Your task to perform on an android device: Show me the alarms in the clock app Image 0: 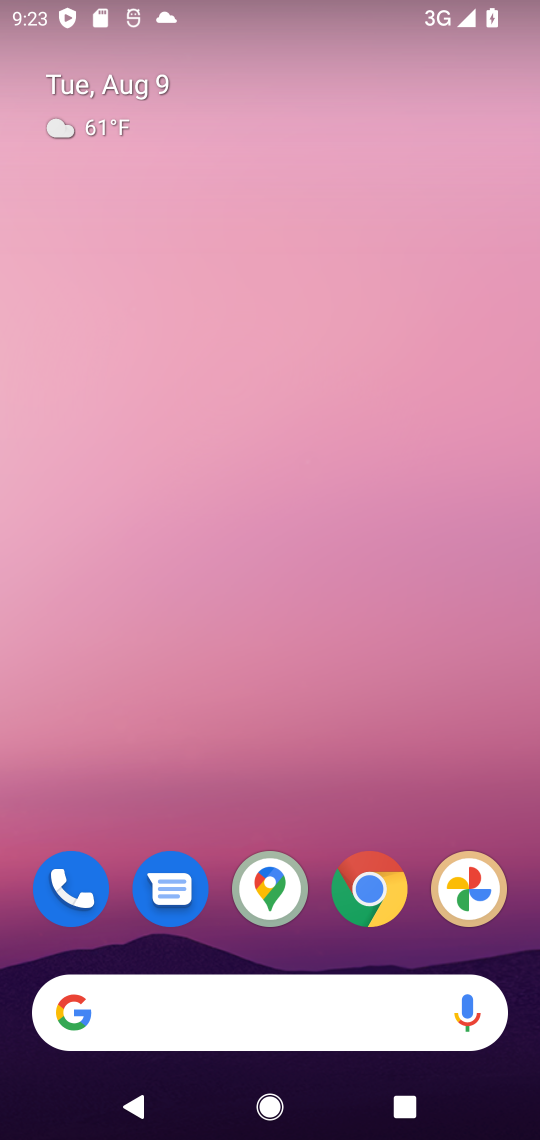
Step 0: drag from (168, 1068) to (437, 123)
Your task to perform on an android device: Show me the alarms in the clock app Image 1: 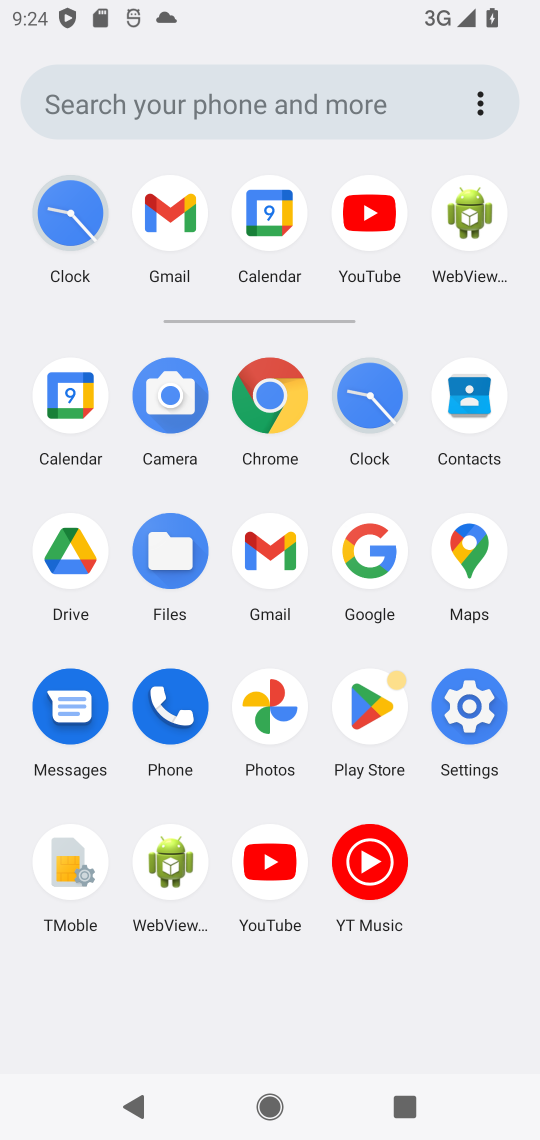
Step 1: click (49, 213)
Your task to perform on an android device: Show me the alarms in the clock app Image 2: 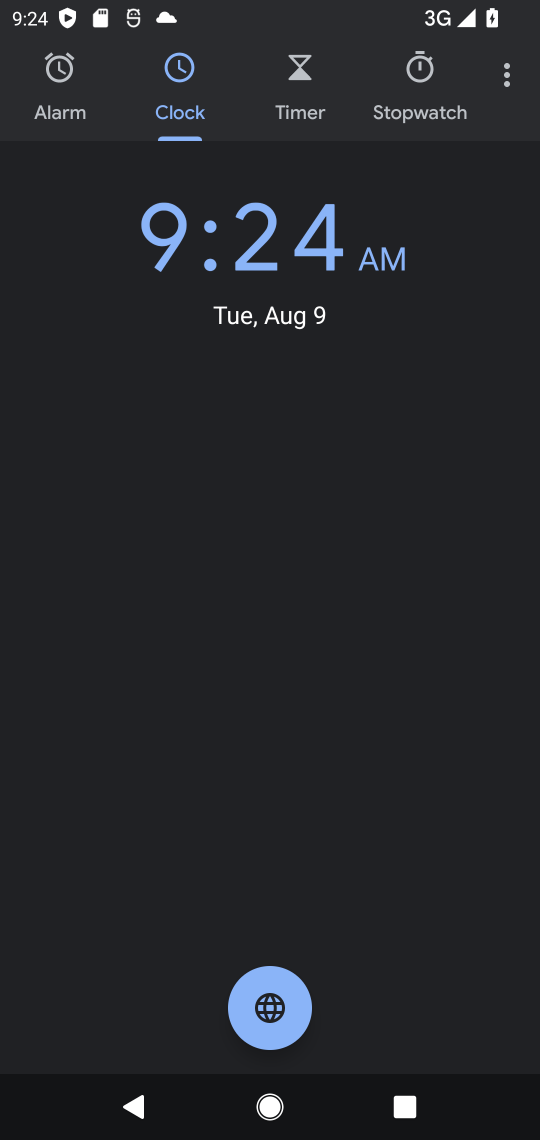
Step 2: click (68, 87)
Your task to perform on an android device: Show me the alarms in the clock app Image 3: 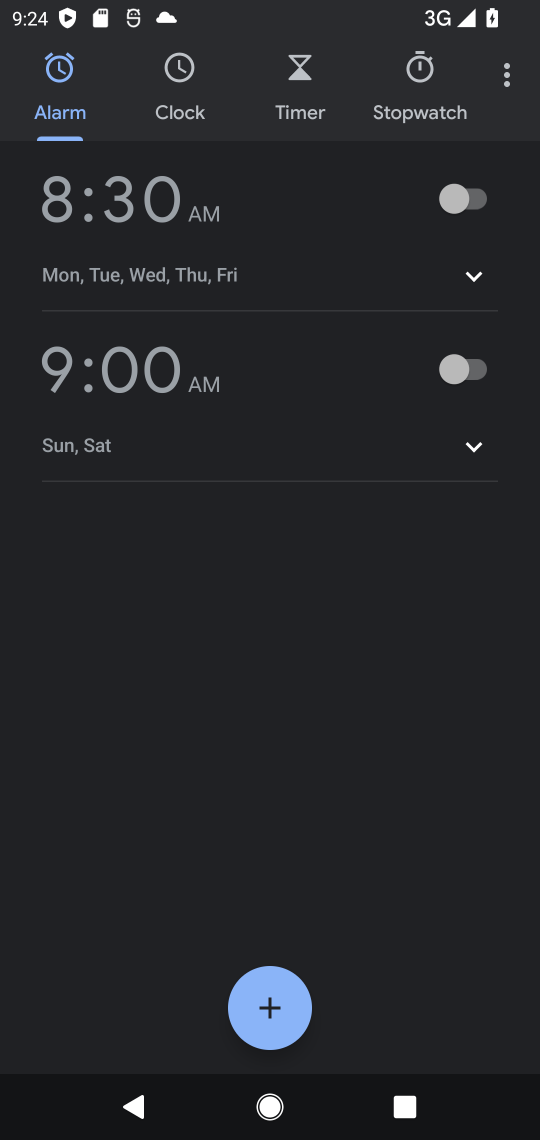
Step 3: click (59, 104)
Your task to perform on an android device: Show me the alarms in the clock app Image 4: 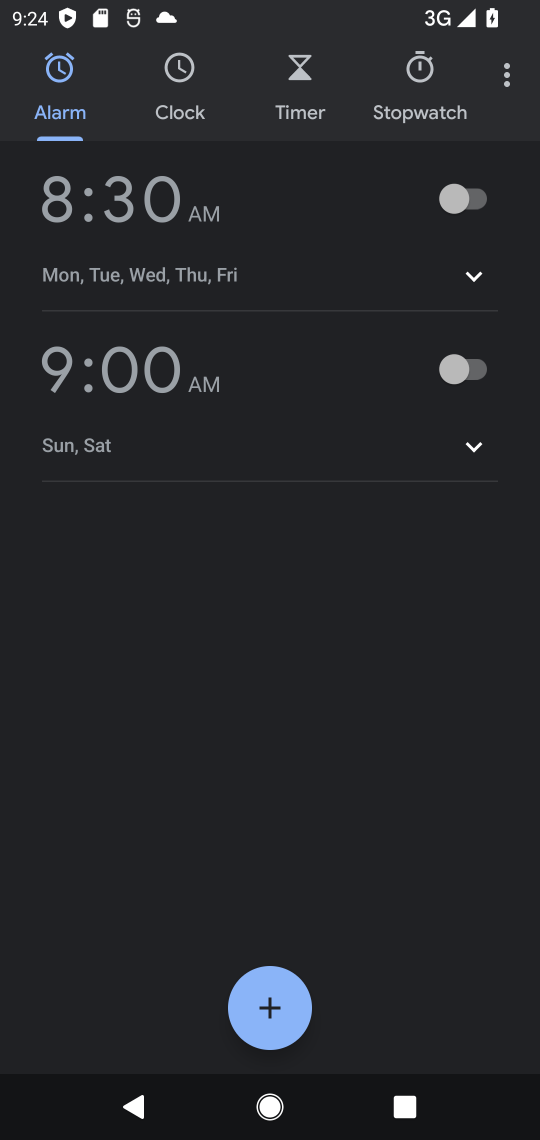
Step 4: task complete